Your task to perform on an android device: Go to Reddit.com Image 0: 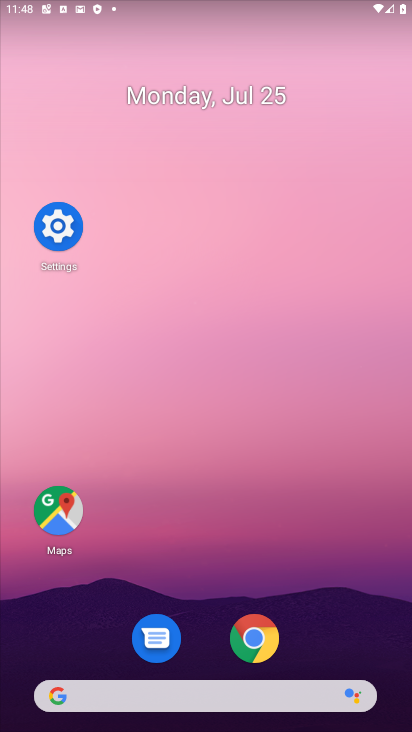
Step 0: click (255, 642)
Your task to perform on an android device: Go to Reddit.com Image 1: 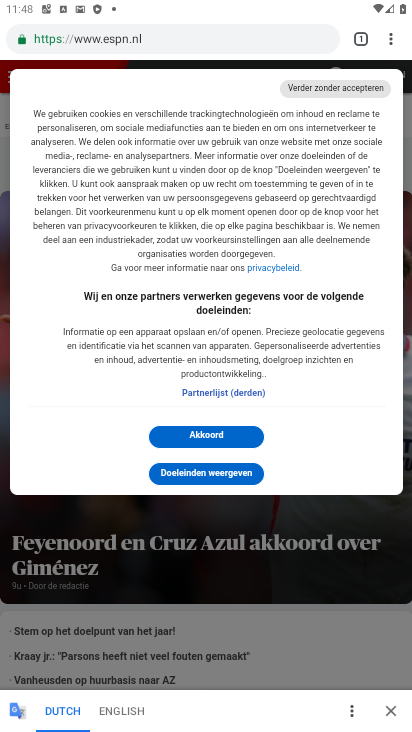
Step 1: click (359, 45)
Your task to perform on an android device: Go to Reddit.com Image 2: 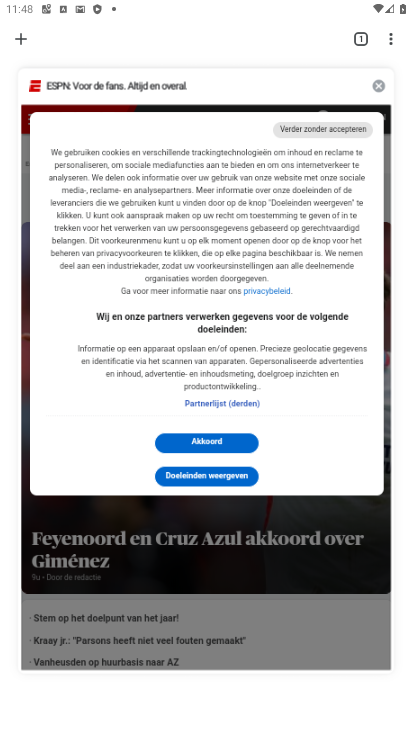
Step 2: click (39, 37)
Your task to perform on an android device: Go to Reddit.com Image 3: 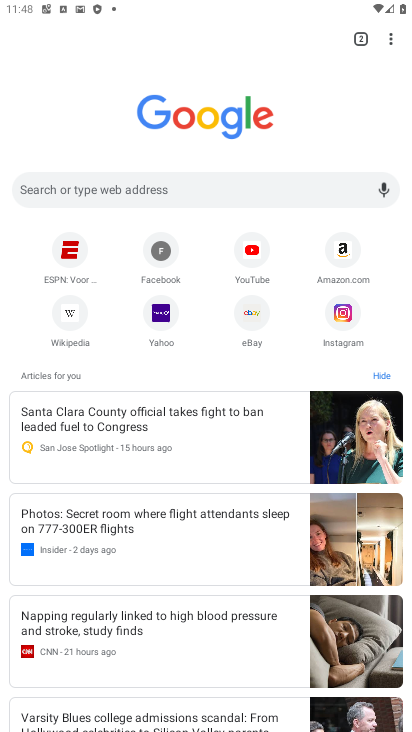
Step 3: click (167, 191)
Your task to perform on an android device: Go to Reddit.com Image 4: 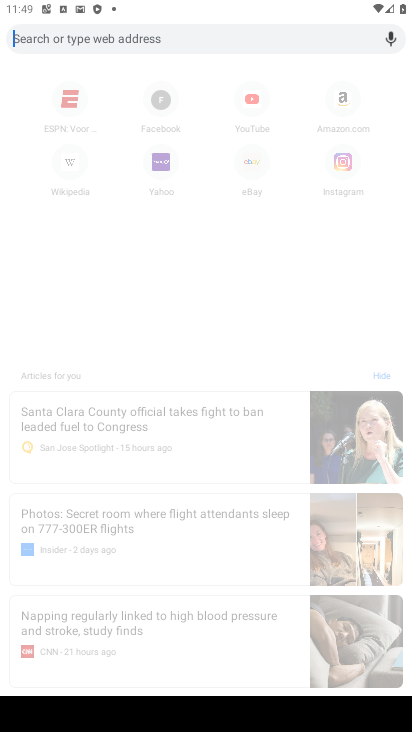
Step 4: type "reddit"
Your task to perform on an android device: Go to Reddit.com Image 5: 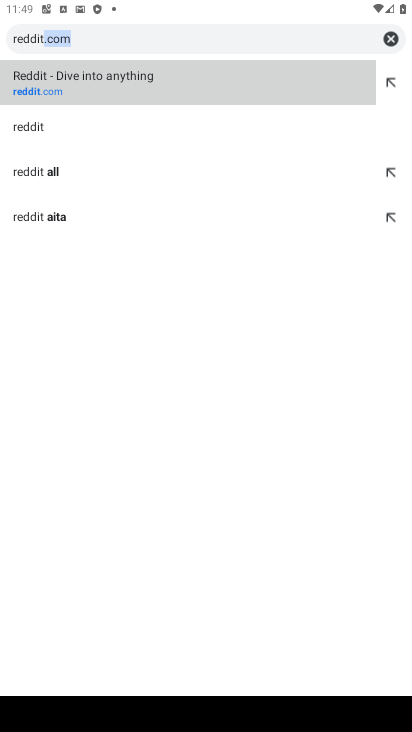
Step 5: click (101, 98)
Your task to perform on an android device: Go to Reddit.com Image 6: 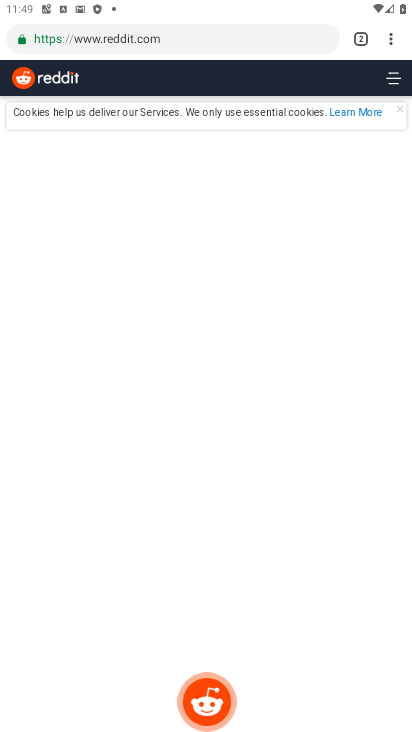
Step 6: task complete